Your task to perform on an android device: open sync settings in chrome Image 0: 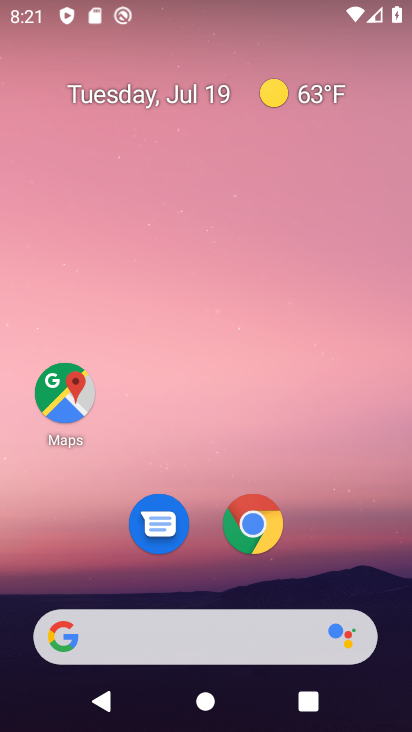
Step 0: click (250, 509)
Your task to perform on an android device: open sync settings in chrome Image 1: 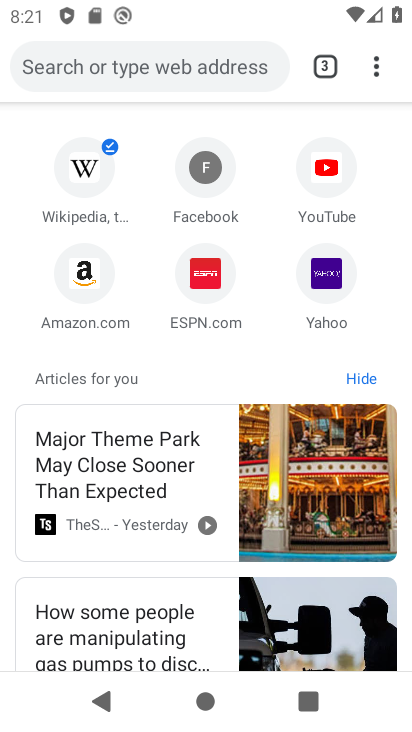
Step 1: drag from (375, 62) to (212, 566)
Your task to perform on an android device: open sync settings in chrome Image 2: 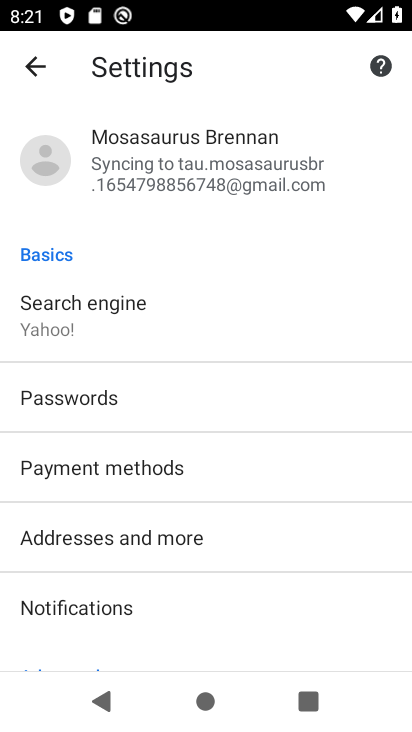
Step 2: click (202, 188)
Your task to perform on an android device: open sync settings in chrome Image 3: 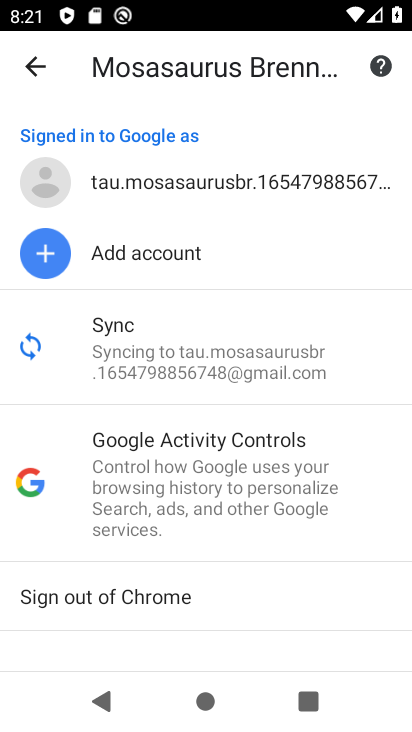
Step 3: click (154, 329)
Your task to perform on an android device: open sync settings in chrome Image 4: 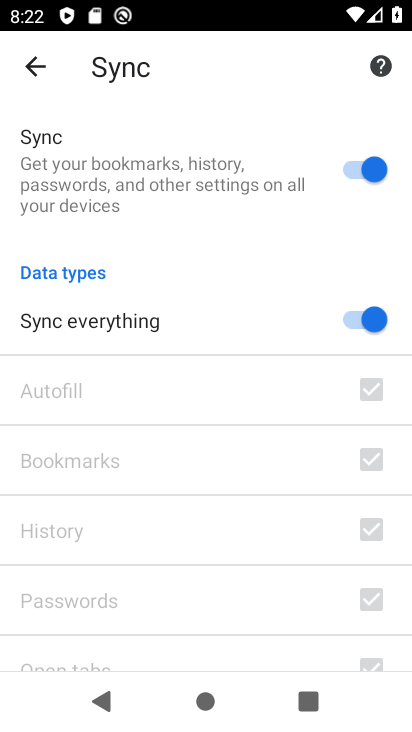
Step 4: task complete